Your task to perform on an android device: Go to Wikipedia Image 0: 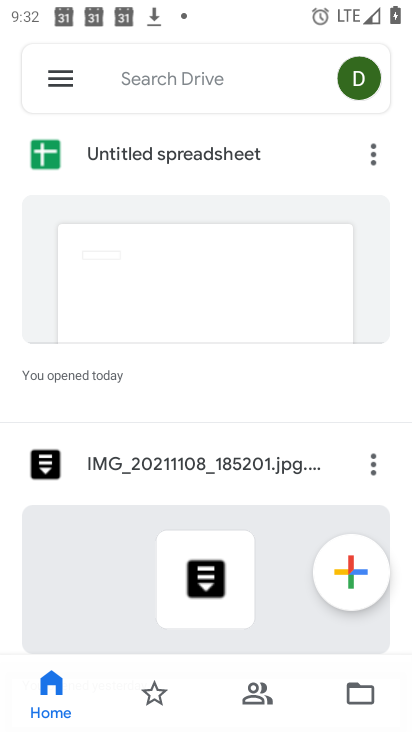
Step 0: press home button
Your task to perform on an android device: Go to Wikipedia Image 1: 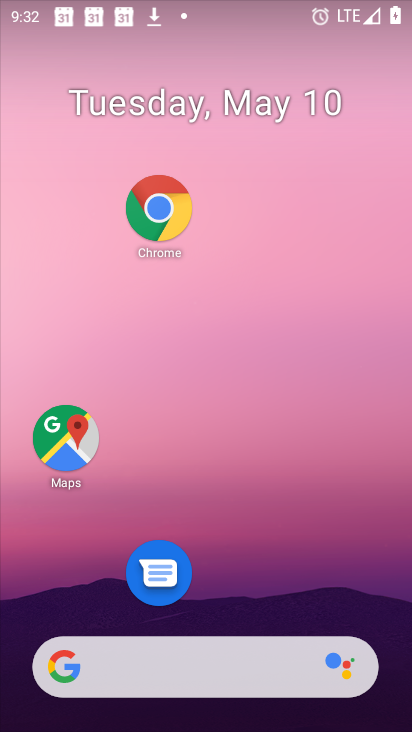
Step 1: drag from (250, 694) to (390, 97)
Your task to perform on an android device: Go to Wikipedia Image 2: 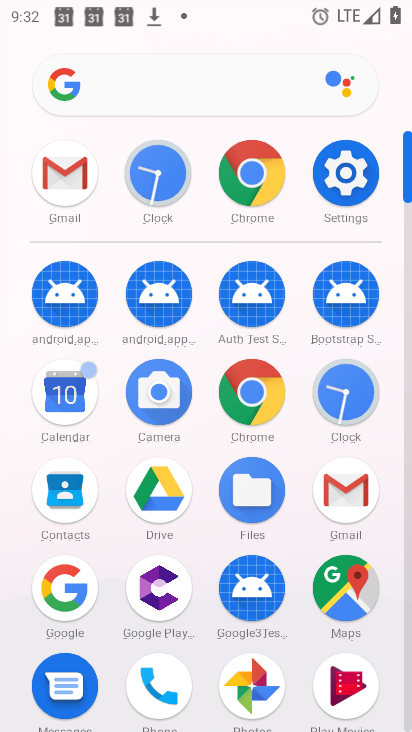
Step 2: click (263, 180)
Your task to perform on an android device: Go to Wikipedia Image 3: 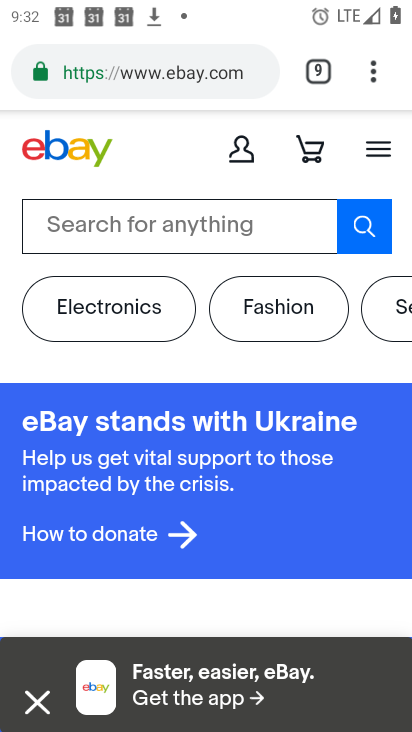
Step 3: click (314, 62)
Your task to perform on an android device: Go to Wikipedia Image 4: 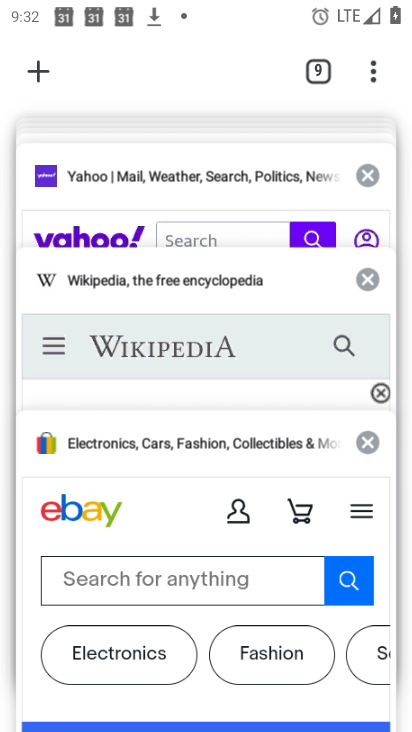
Step 4: click (32, 95)
Your task to perform on an android device: Go to Wikipedia Image 5: 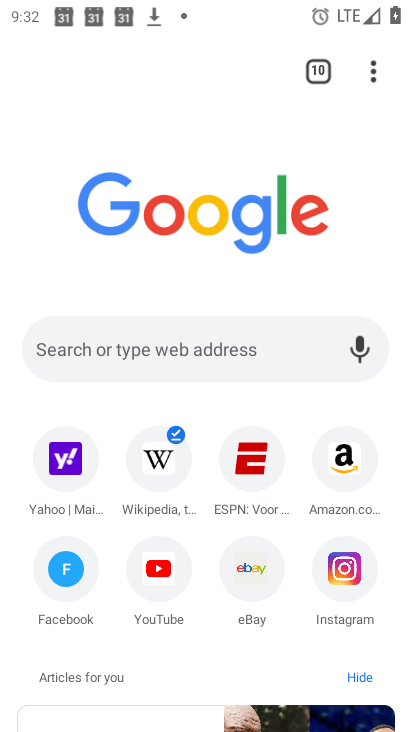
Step 5: click (170, 456)
Your task to perform on an android device: Go to Wikipedia Image 6: 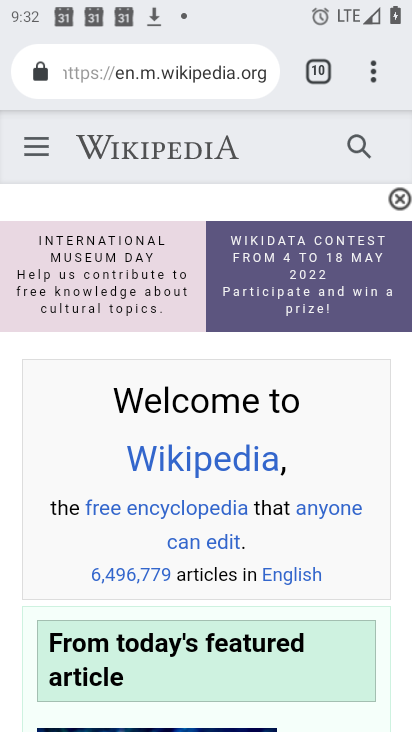
Step 6: task complete